Your task to perform on an android device: star an email in the gmail app Image 0: 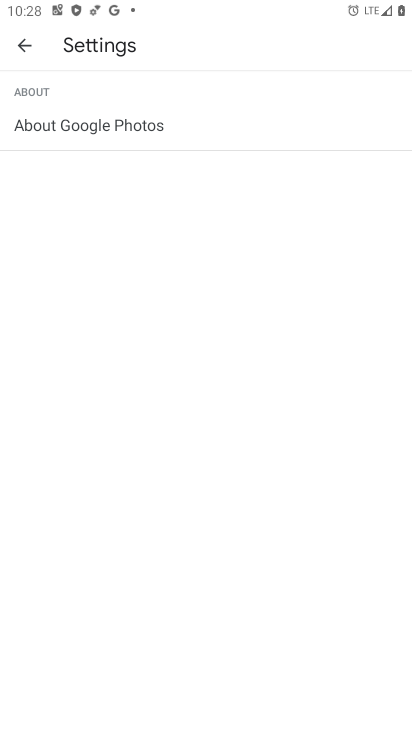
Step 0: press home button
Your task to perform on an android device: star an email in the gmail app Image 1: 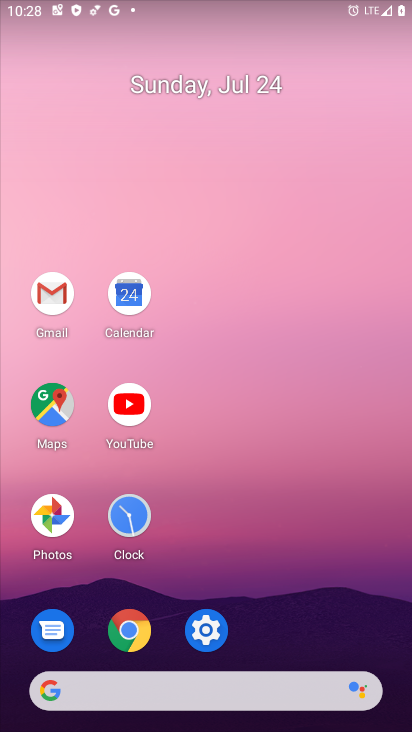
Step 1: click (51, 294)
Your task to perform on an android device: star an email in the gmail app Image 2: 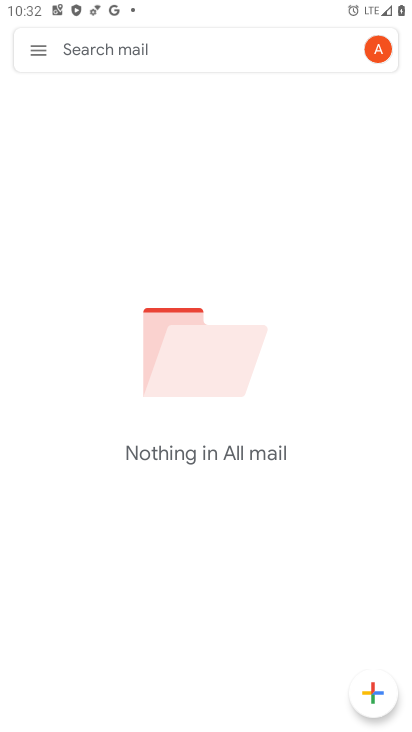
Step 2: task complete